Your task to perform on an android device: Show me recent news Image 0: 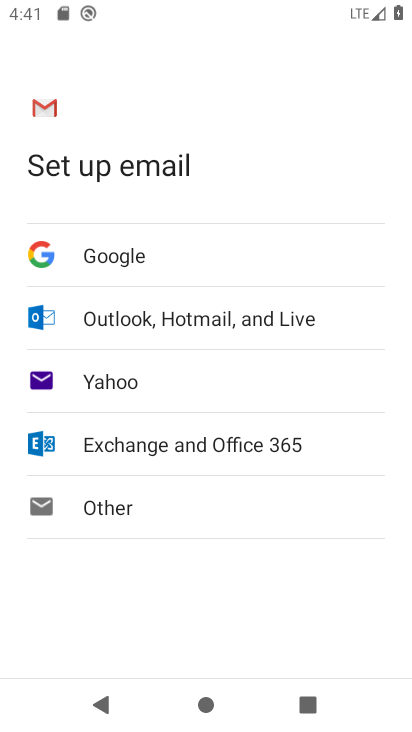
Step 0: press home button
Your task to perform on an android device: Show me recent news Image 1: 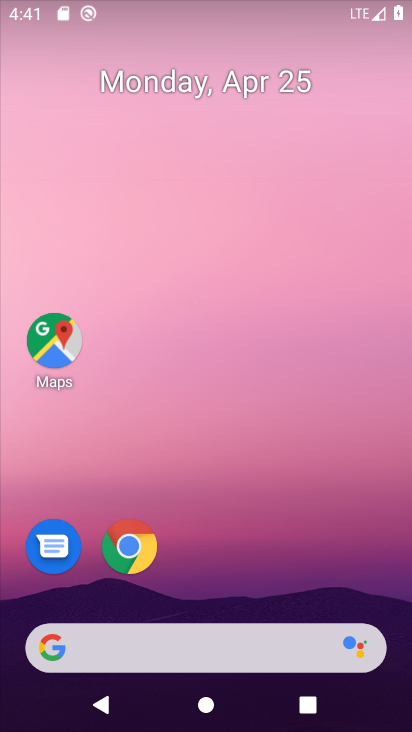
Step 1: drag from (245, 491) to (273, 57)
Your task to perform on an android device: Show me recent news Image 2: 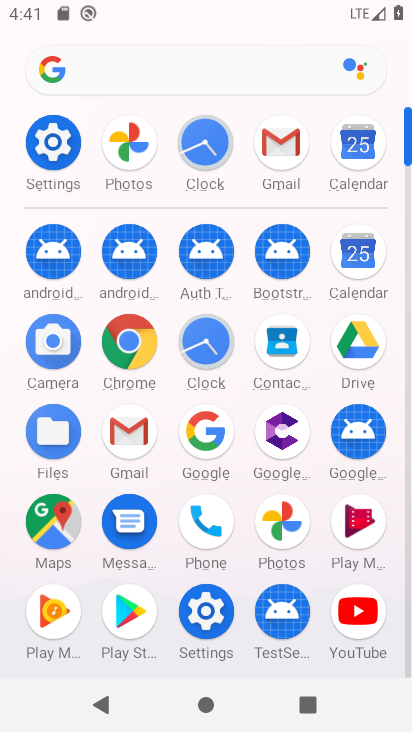
Step 2: click (117, 80)
Your task to perform on an android device: Show me recent news Image 3: 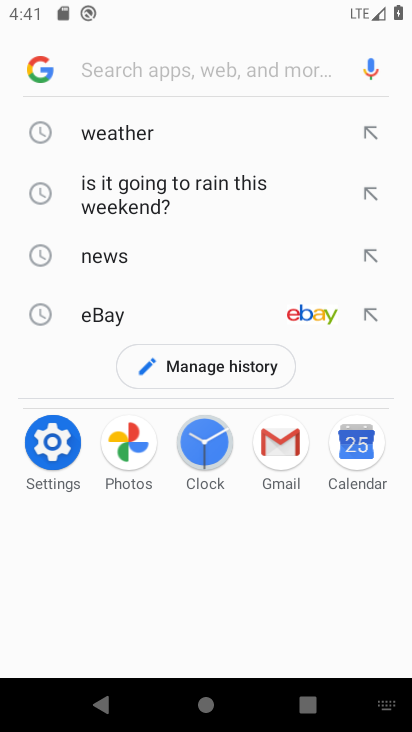
Step 3: type "recent news"
Your task to perform on an android device: Show me recent news Image 4: 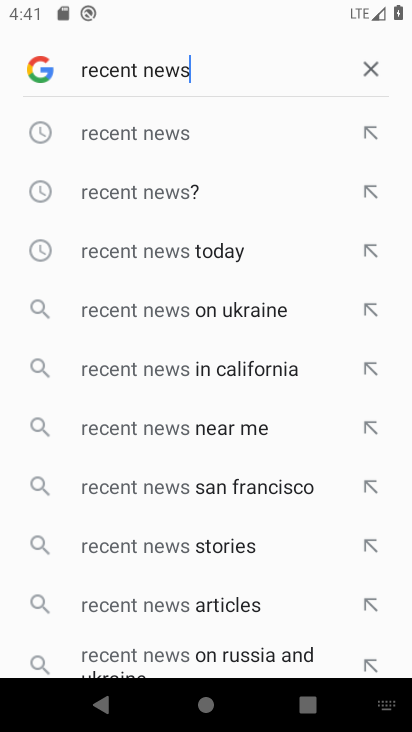
Step 4: click (189, 120)
Your task to perform on an android device: Show me recent news Image 5: 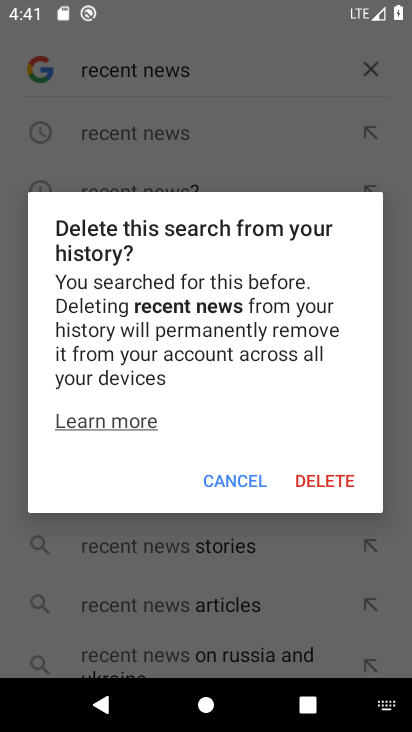
Step 5: click (237, 480)
Your task to perform on an android device: Show me recent news Image 6: 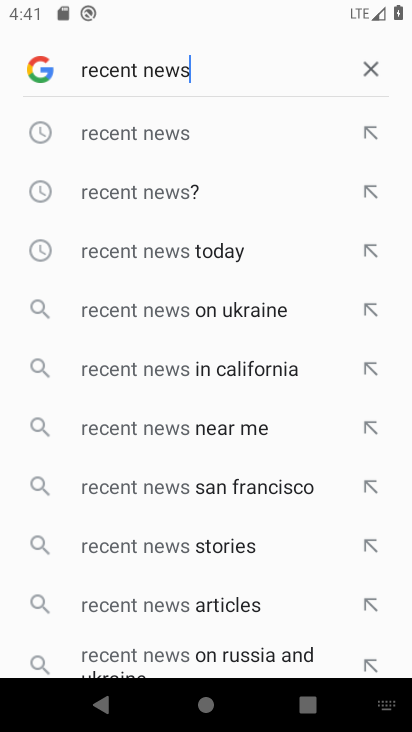
Step 6: click (205, 128)
Your task to perform on an android device: Show me recent news Image 7: 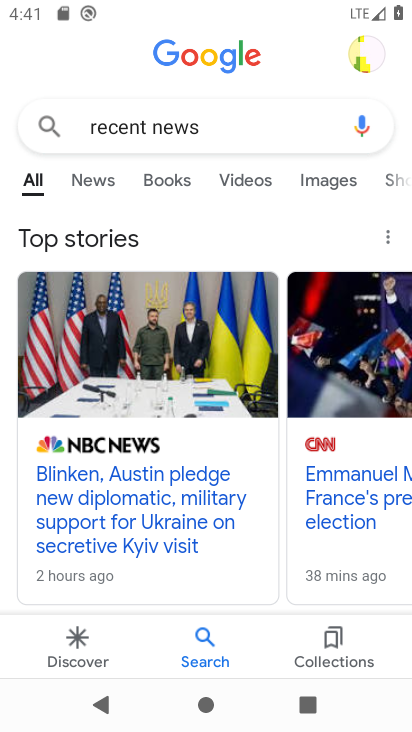
Step 7: click (116, 175)
Your task to perform on an android device: Show me recent news Image 8: 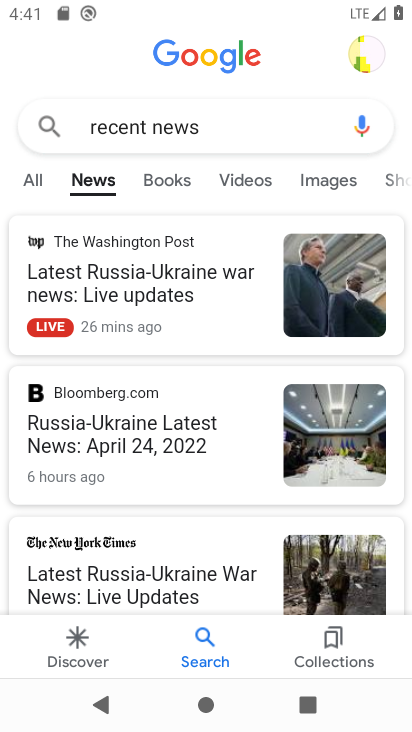
Step 8: task complete